Your task to perform on an android device: turn vacation reply on in the gmail app Image 0: 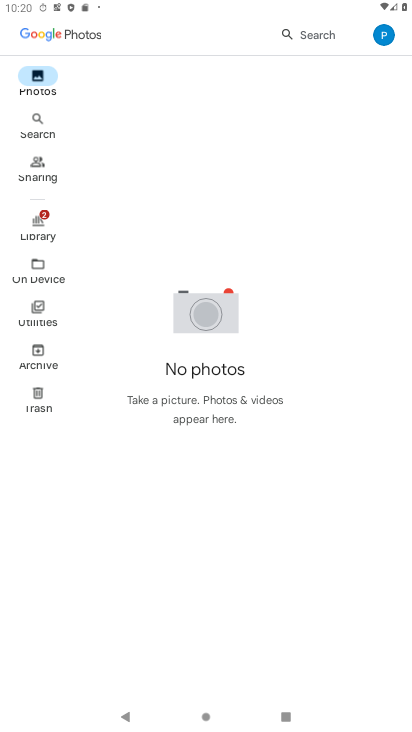
Step 0: press home button
Your task to perform on an android device: turn vacation reply on in the gmail app Image 1: 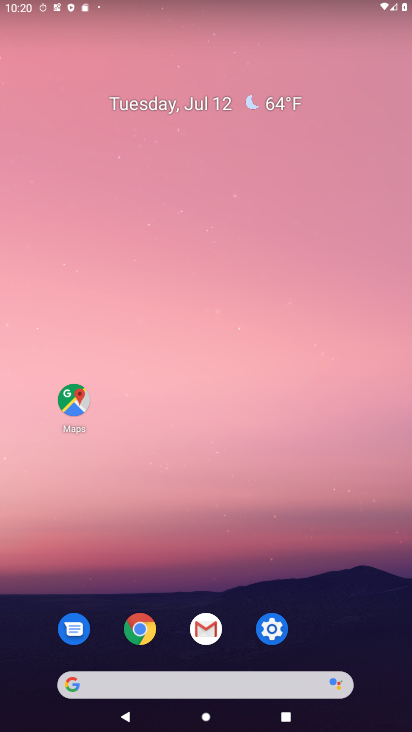
Step 1: drag from (195, 687) to (202, 190)
Your task to perform on an android device: turn vacation reply on in the gmail app Image 2: 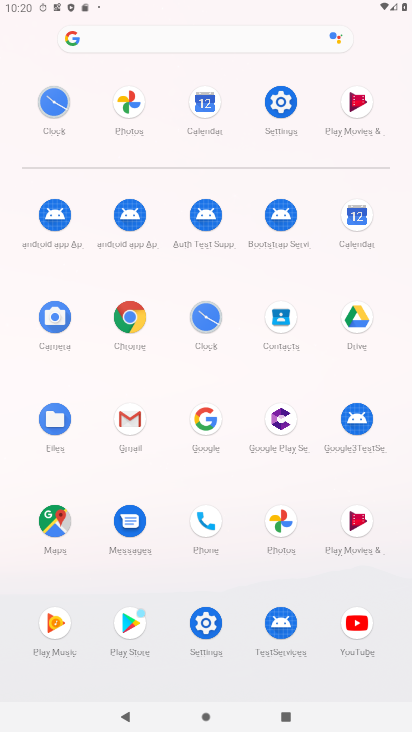
Step 2: click (129, 423)
Your task to perform on an android device: turn vacation reply on in the gmail app Image 3: 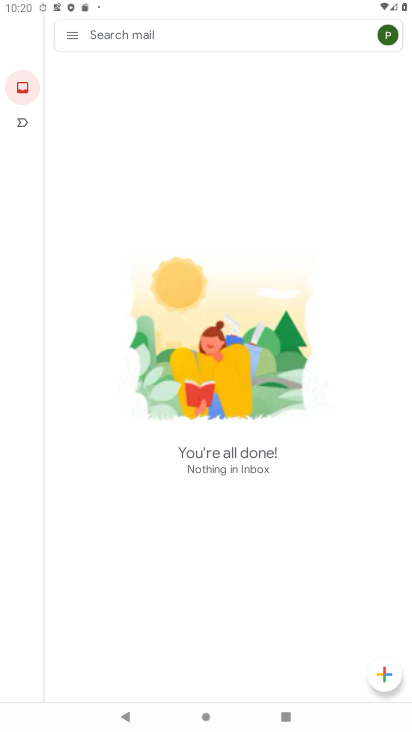
Step 3: click (74, 41)
Your task to perform on an android device: turn vacation reply on in the gmail app Image 4: 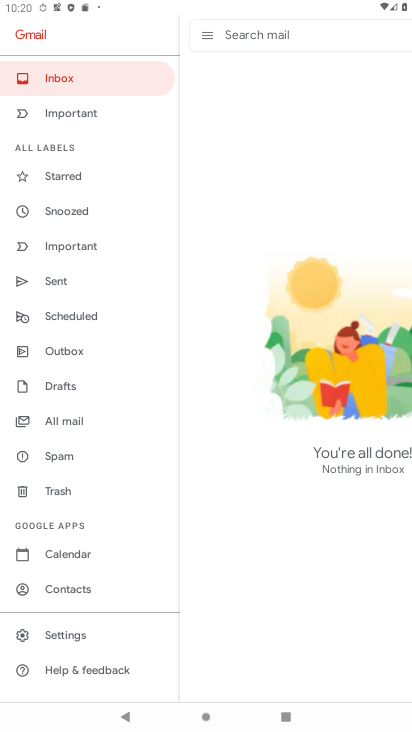
Step 4: click (71, 629)
Your task to perform on an android device: turn vacation reply on in the gmail app Image 5: 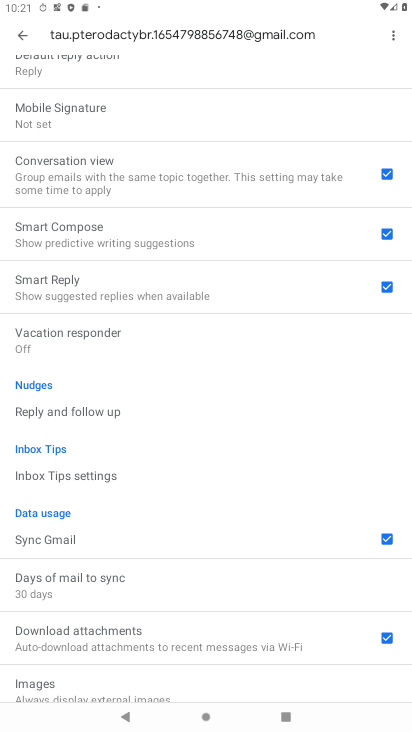
Step 5: task complete